Your task to perform on an android device: Do I have any events today? Image 0: 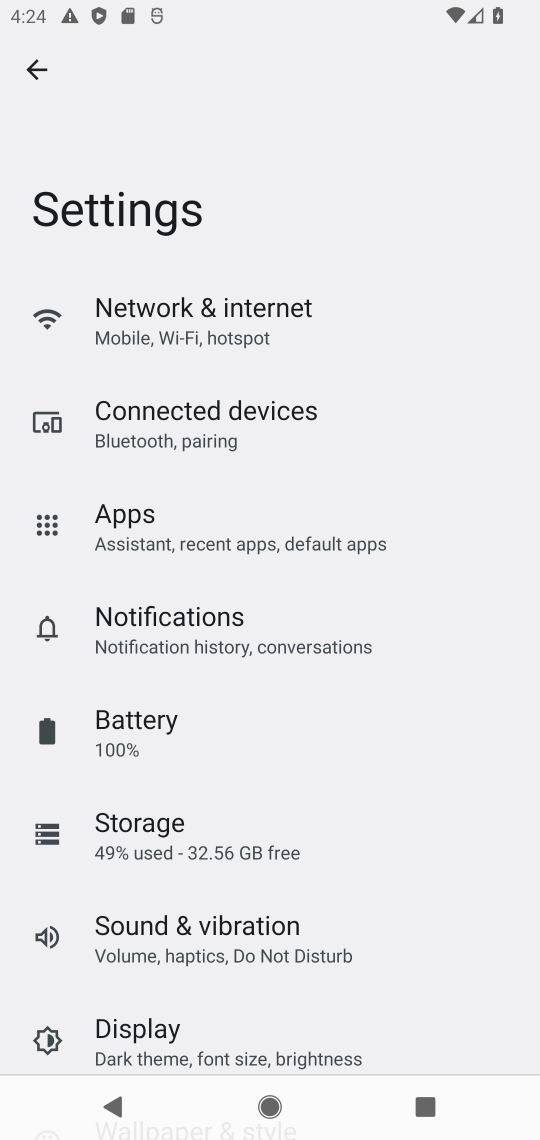
Step 0: press home button
Your task to perform on an android device: Do I have any events today? Image 1: 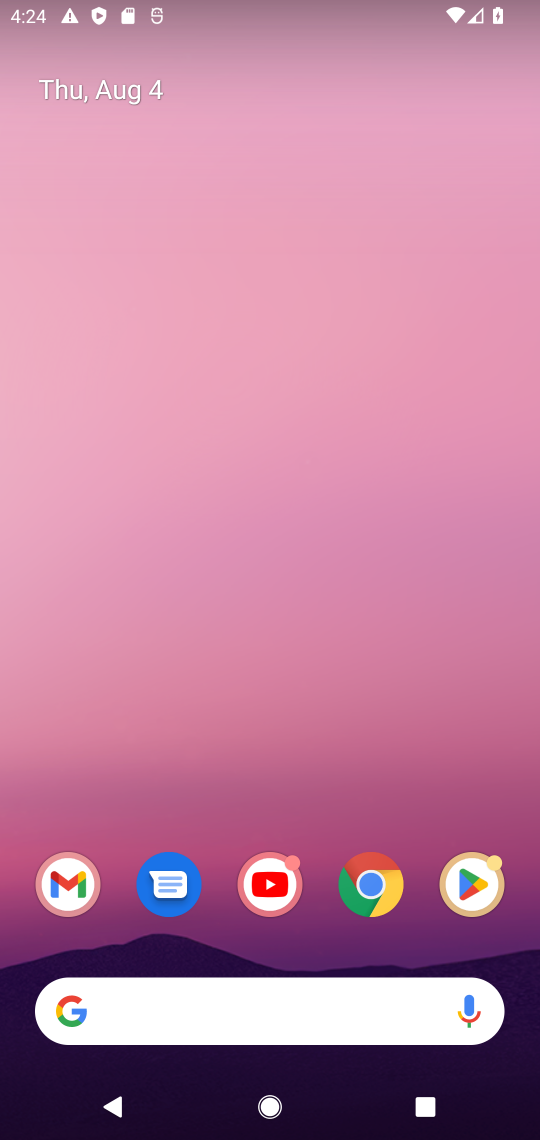
Step 1: drag from (423, 814) to (449, 344)
Your task to perform on an android device: Do I have any events today? Image 2: 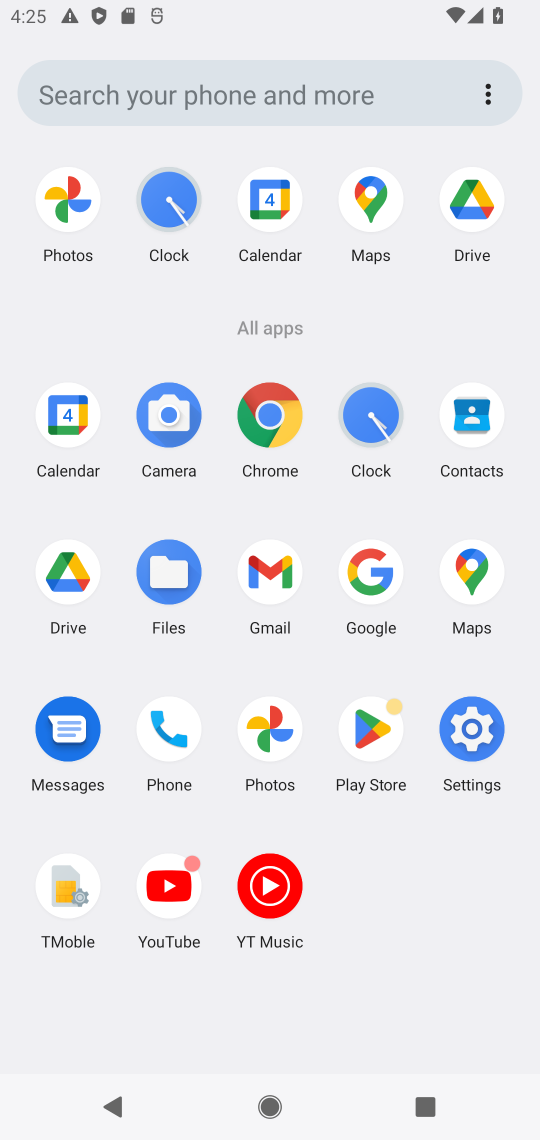
Step 2: click (68, 402)
Your task to perform on an android device: Do I have any events today? Image 3: 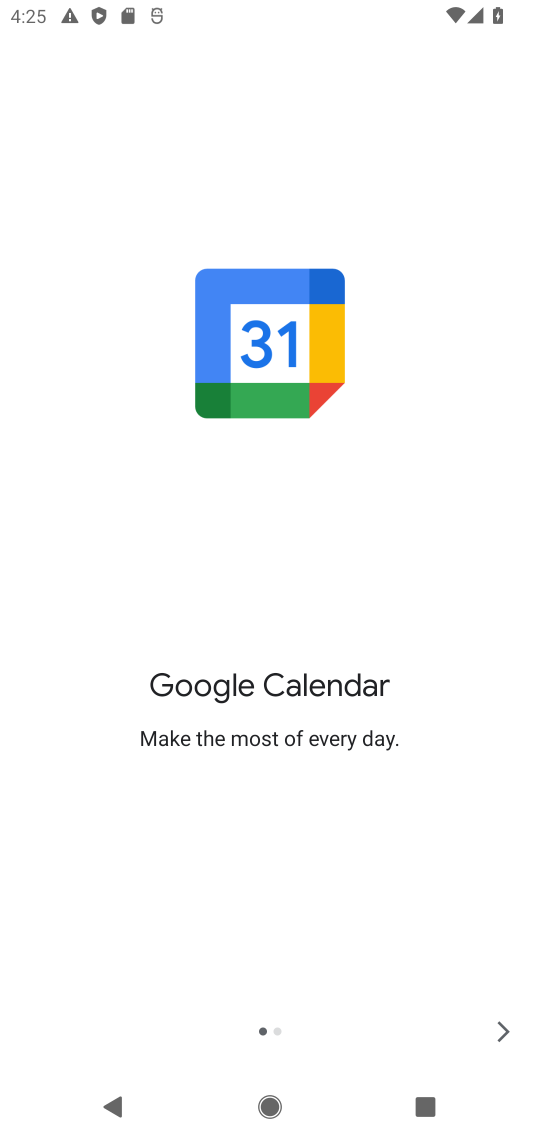
Step 3: click (497, 1028)
Your task to perform on an android device: Do I have any events today? Image 4: 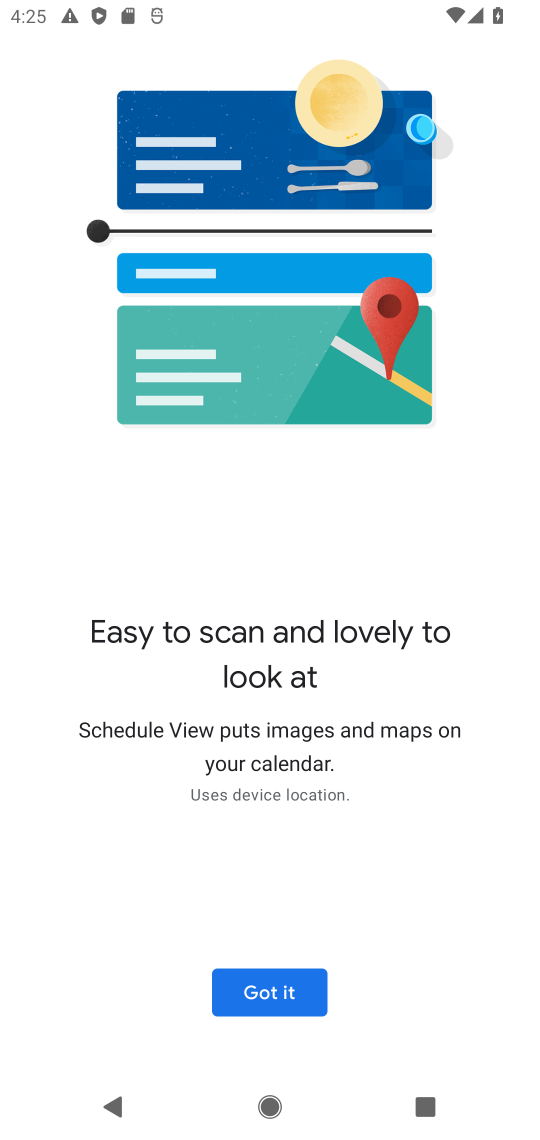
Step 4: click (289, 991)
Your task to perform on an android device: Do I have any events today? Image 5: 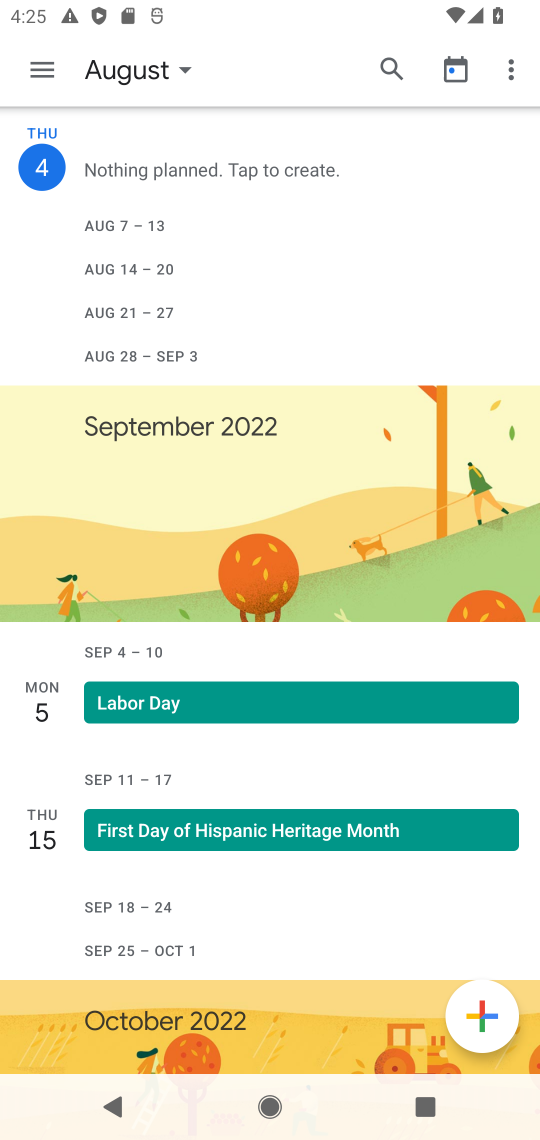
Step 5: click (45, 71)
Your task to perform on an android device: Do I have any events today? Image 6: 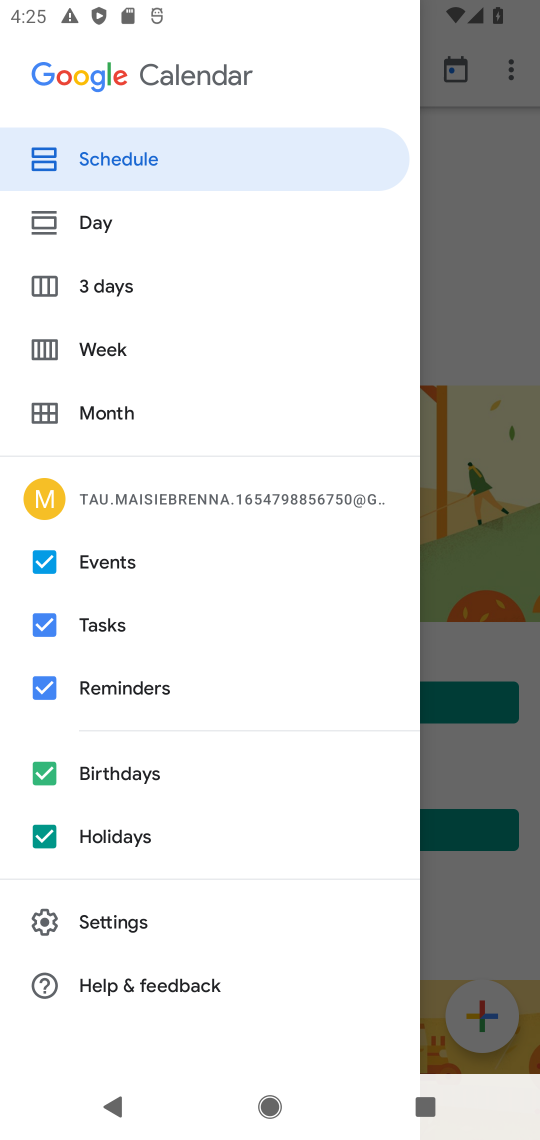
Step 6: click (122, 226)
Your task to perform on an android device: Do I have any events today? Image 7: 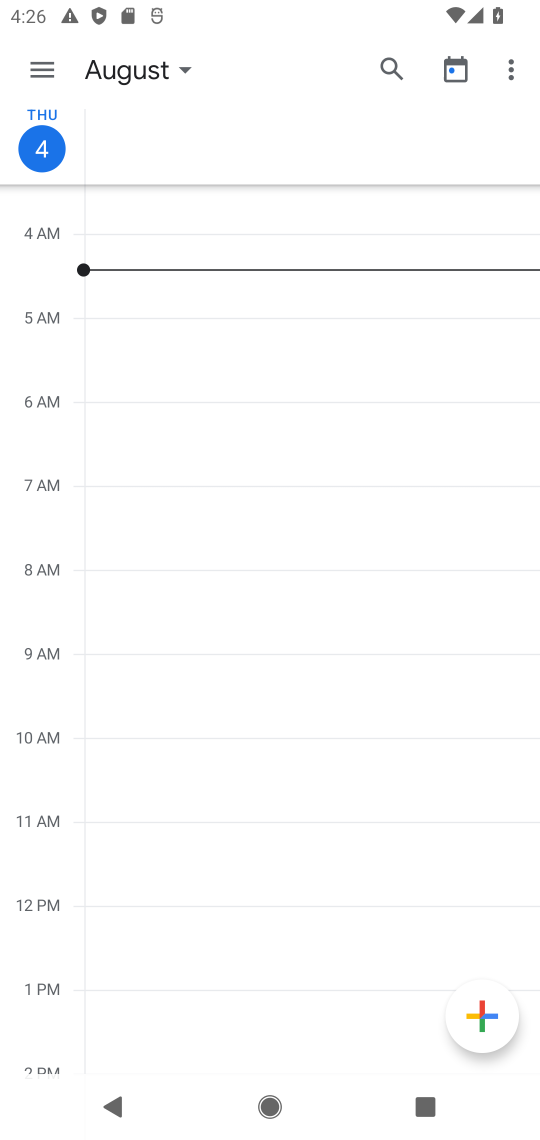
Step 7: task complete